Your task to perform on an android device: Open the web browser Image 0: 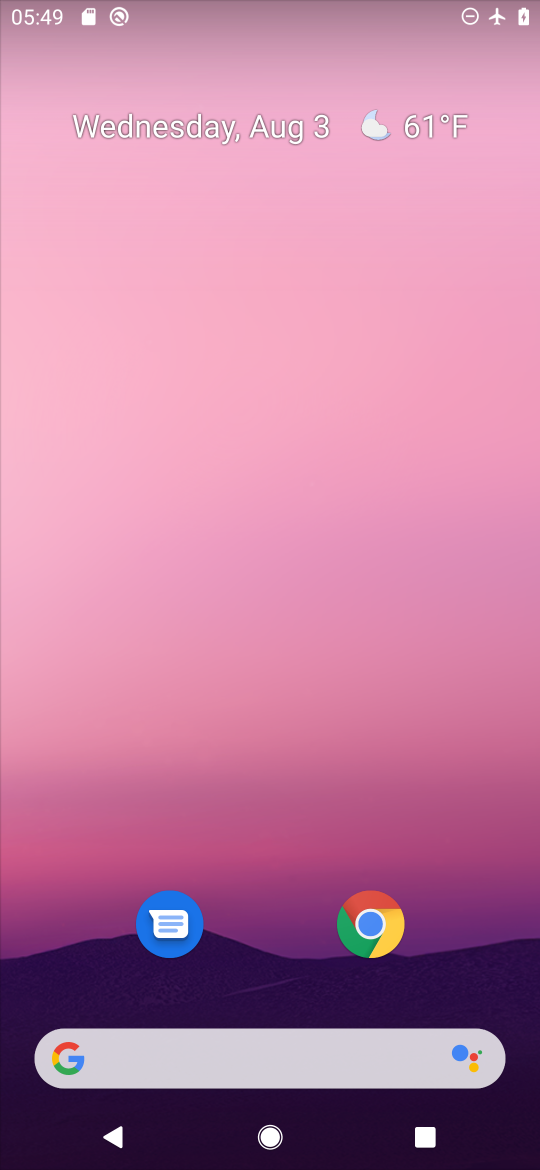
Step 0: click (353, 953)
Your task to perform on an android device: Open the web browser Image 1: 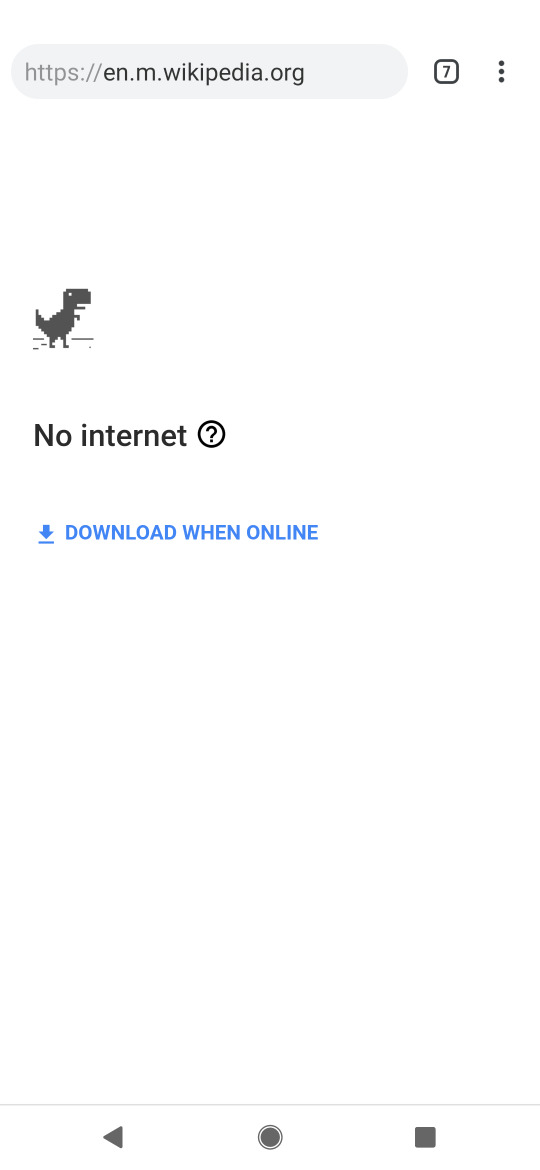
Step 1: task complete